Your task to perform on an android device: search for starred emails in the gmail app Image 0: 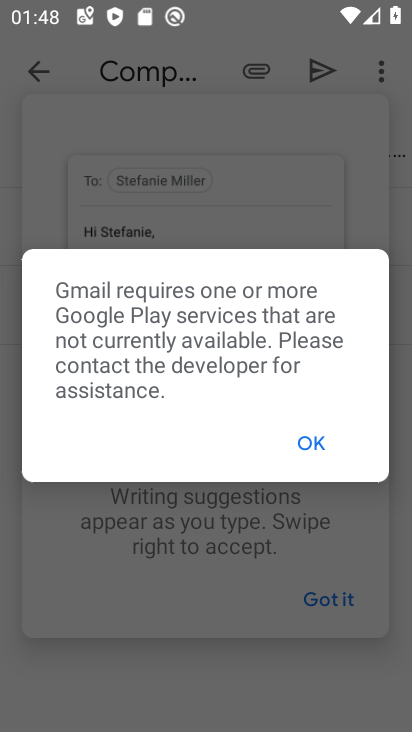
Step 0: press home button
Your task to perform on an android device: search for starred emails in the gmail app Image 1: 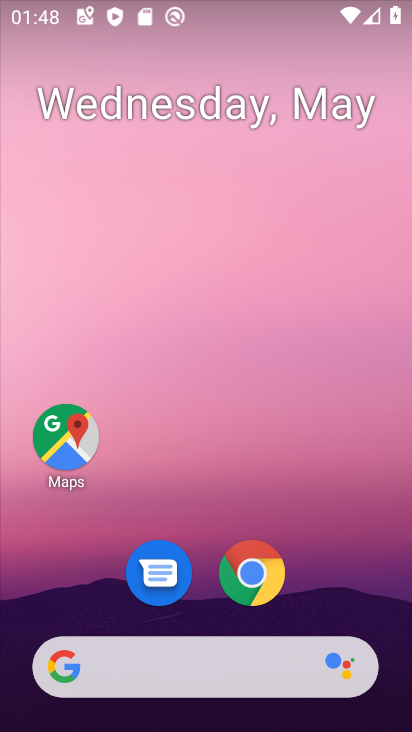
Step 1: click (246, 571)
Your task to perform on an android device: search for starred emails in the gmail app Image 2: 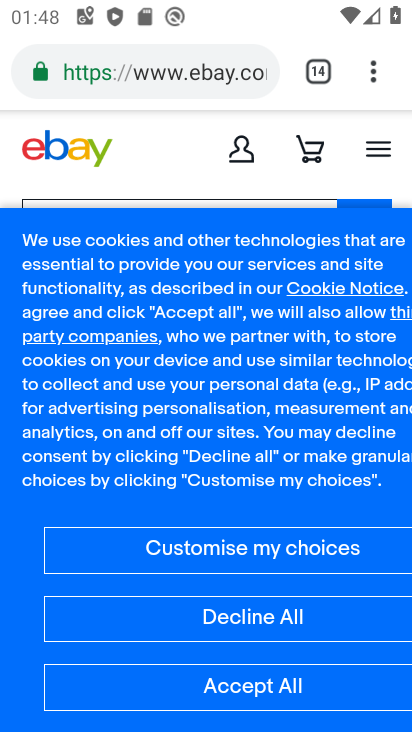
Step 2: press home button
Your task to perform on an android device: search for starred emails in the gmail app Image 3: 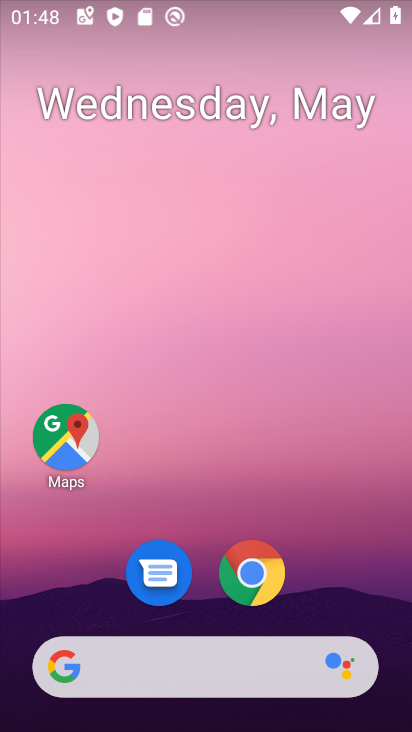
Step 3: drag from (252, 500) to (248, 205)
Your task to perform on an android device: search for starred emails in the gmail app Image 4: 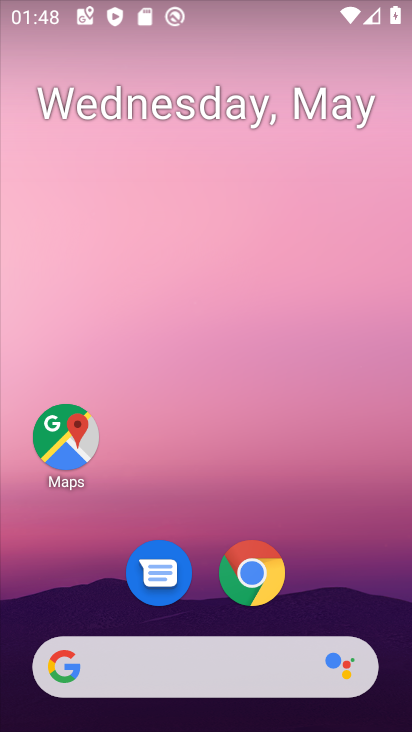
Step 4: drag from (351, 606) to (295, 232)
Your task to perform on an android device: search for starred emails in the gmail app Image 5: 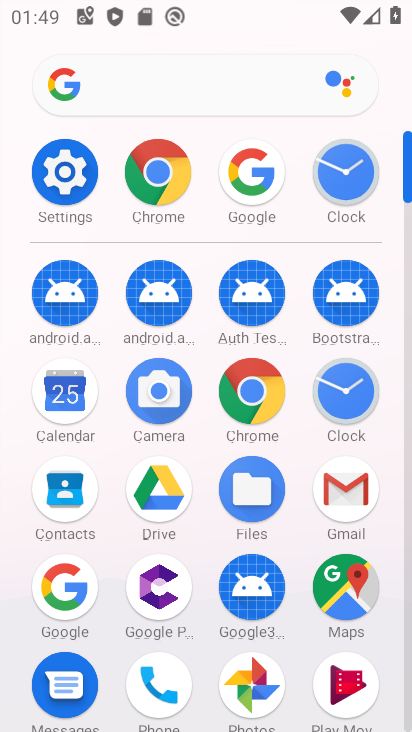
Step 5: click (342, 509)
Your task to perform on an android device: search for starred emails in the gmail app Image 6: 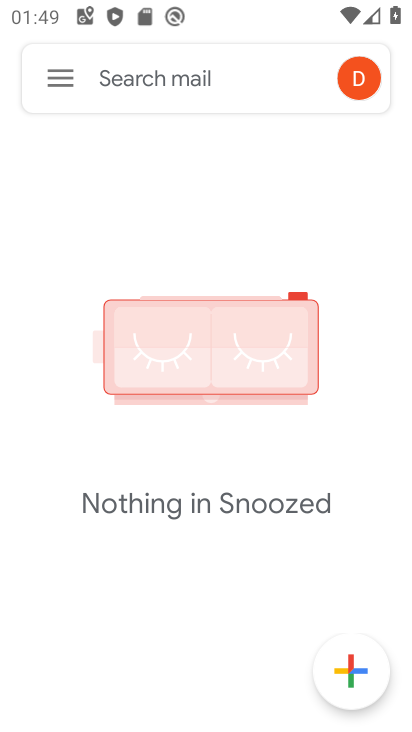
Step 6: click (49, 81)
Your task to perform on an android device: search for starred emails in the gmail app Image 7: 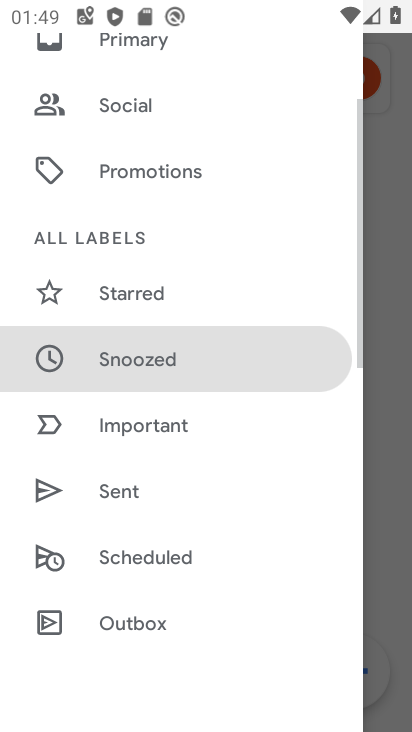
Step 7: drag from (176, 204) to (244, 529)
Your task to perform on an android device: search for starred emails in the gmail app Image 8: 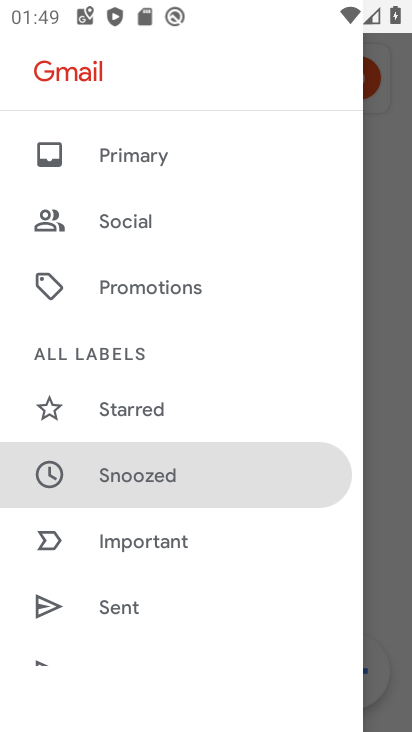
Step 8: click (158, 422)
Your task to perform on an android device: search for starred emails in the gmail app Image 9: 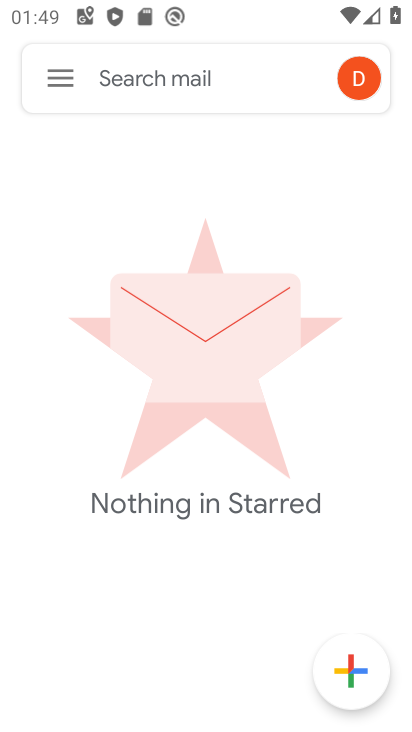
Step 9: task complete